Your task to perform on an android device: Open the calendar and show me this week's events? Image 0: 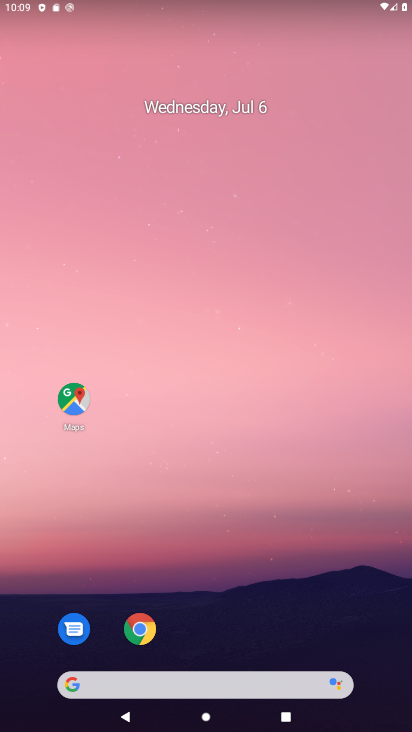
Step 0: drag from (16, 596) to (178, 165)
Your task to perform on an android device: Open the calendar and show me this week's events? Image 1: 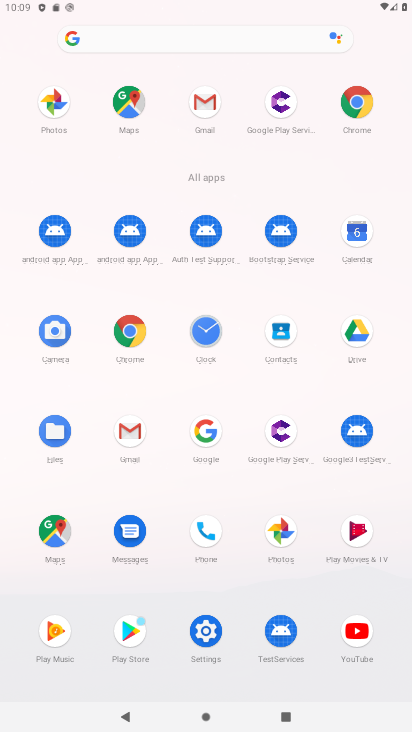
Step 1: click (361, 234)
Your task to perform on an android device: Open the calendar and show me this week's events? Image 2: 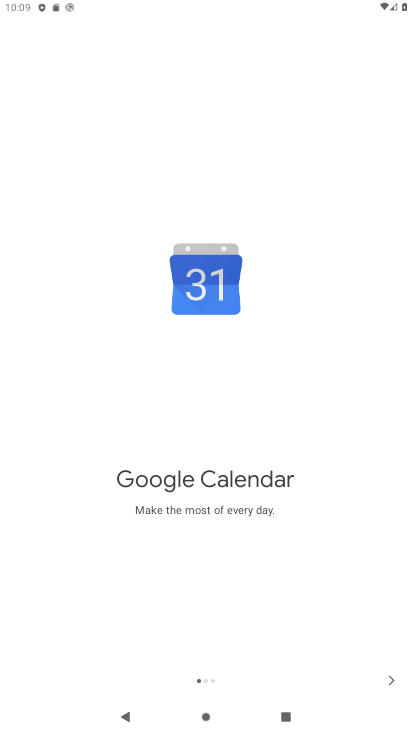
Step 2: click (396, 683)
Your task to perform on an android device: Open the calendar and show me this week's events? Image 3: 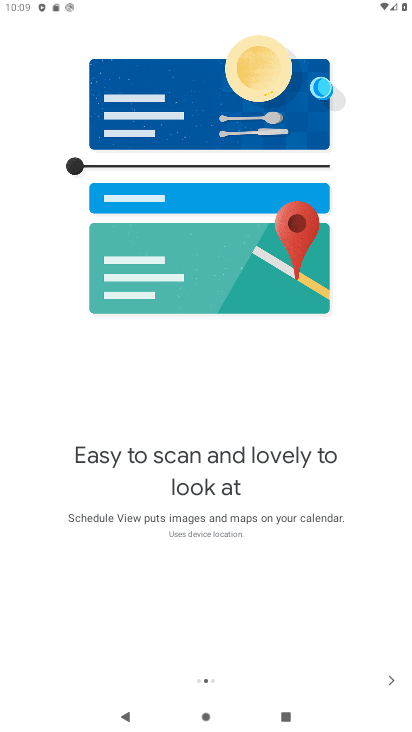
Step 3: click (395, 672)
Your task to perform on an android device: Open the calendar and show me this week's events? Image 4: 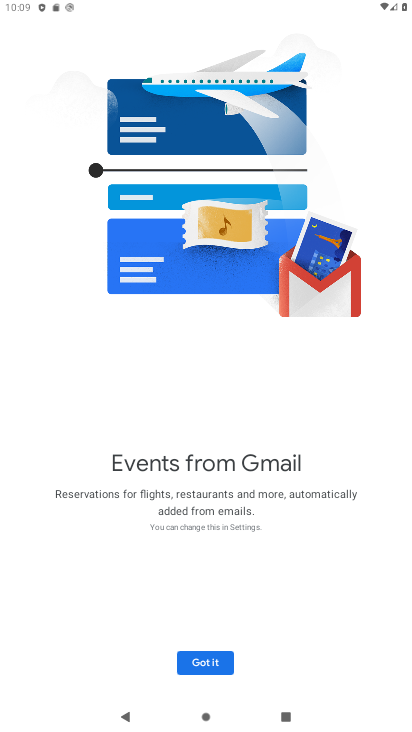
Step 4: click (218, 660)
Your task to perform on an android device: Open the calendar and show me this week's events? Image 5: 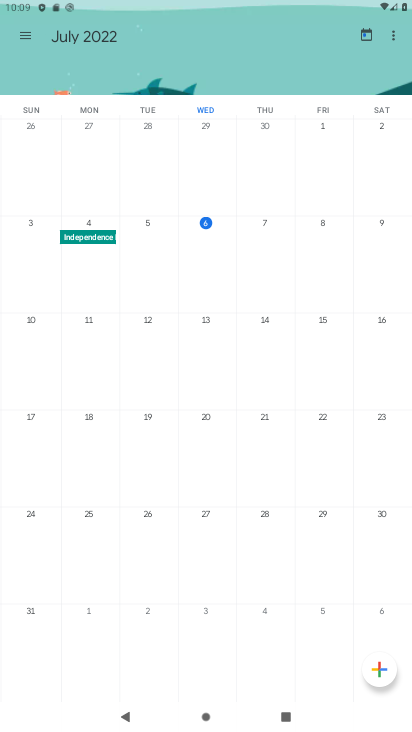
Step 5: click (86, 34)
Your task to perform on an android device: Open the calendar and show me this week's events? Image 6: 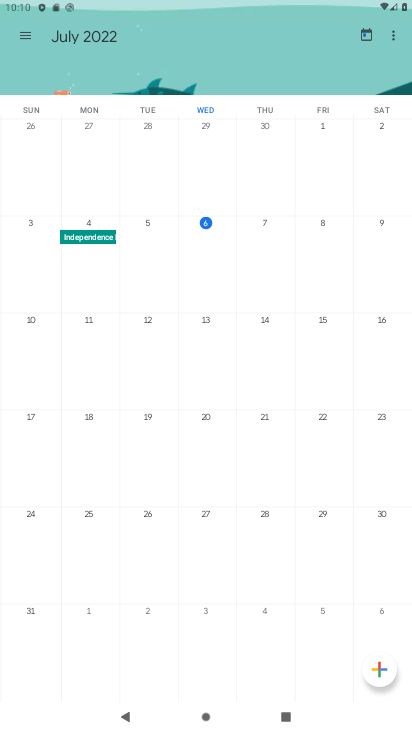
Step 6: click (34, 343)
Your task to perform on an android device: Open the calendar and show me this week's events? Image 7: 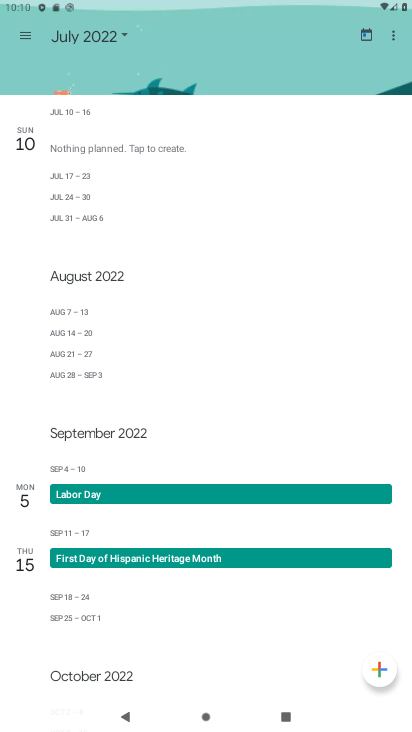
Step 7: task complete